Your task to perform on an android device: star an email in the gmail app Image 0: 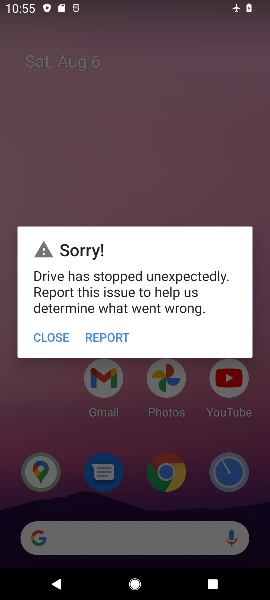
Step 0: click (36, 334)
Your task to perform on an android device: star an email in the gmail app Image 1: 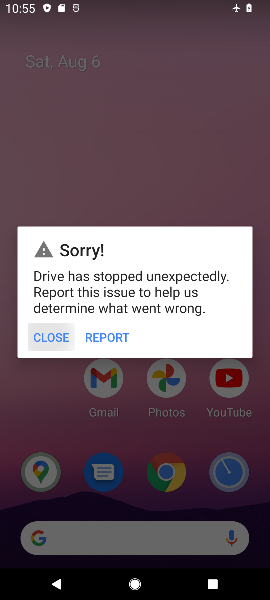
Step 1: press back button
Your task to perform on an android device: star an email in the gmail app Image 2: 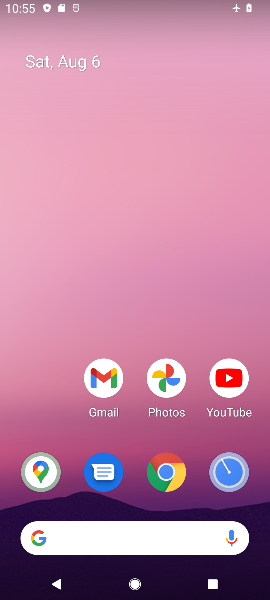
Step 2: drag from (168, 531) to (112, 48)
Your task to perform on an android device: star an email in the gmail app Image 3: 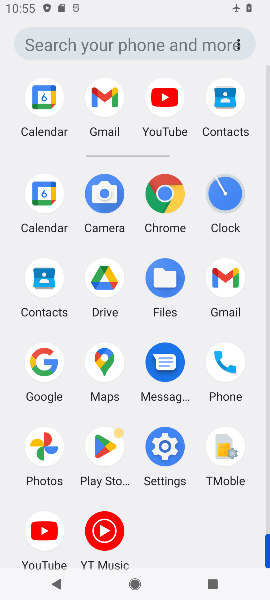
Step 3: drag from (188, 433) to (150, 188)
Your task to perform on an android device: star an email in the gmail app Image 4: 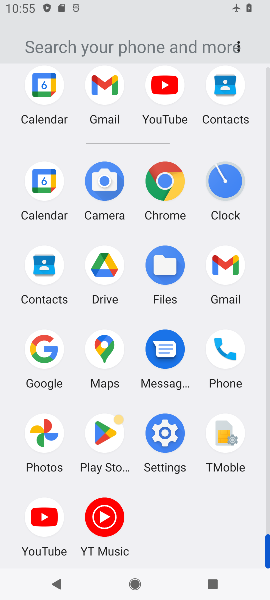
Step 4: click (222, 257)
Your task to perform on an android device: star an email in the gmail app Image 5: 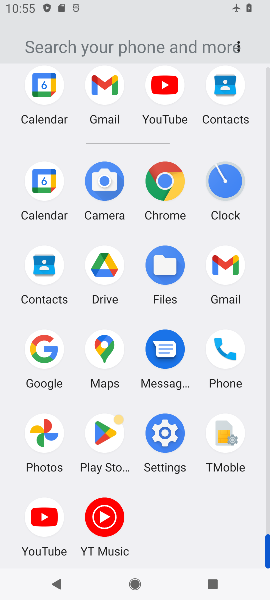
Step 5: click (222, 257)
Your task to perform on an android device: star an email in the gmail app Image 6: 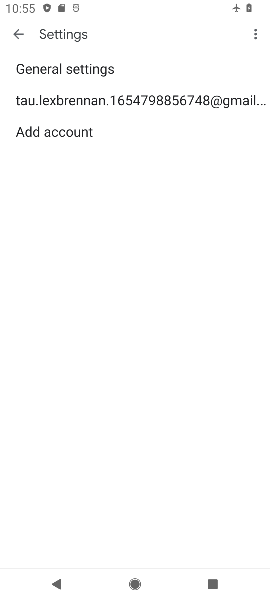
Step 6: click (222, 267)
Your task to perform on an android device: star an email in the gmail app Image 7: 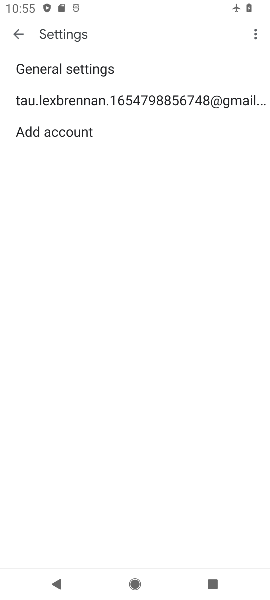
Step 7: click (222, 267)
Your task to perform on an android device: star an email in the gmail app Image 8: 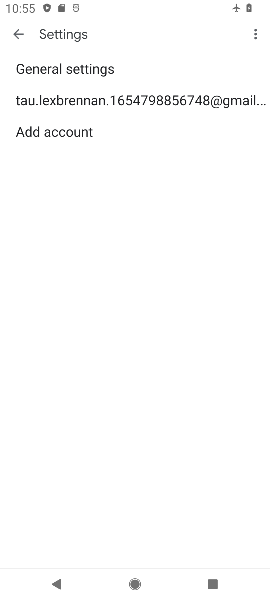
Step 8: click (224, 268)
Your task to perform on an android device: star an email in the gmail app Image 9: 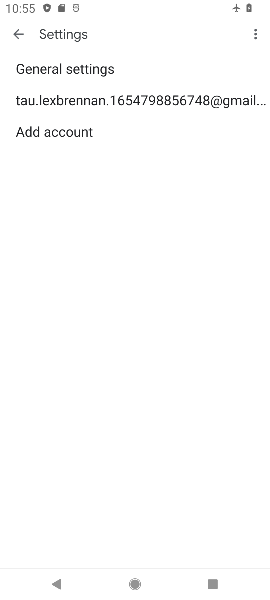
Step 9: click (86, 98)
Your task to perform on an android device: star an email in the gmail app Image 10: 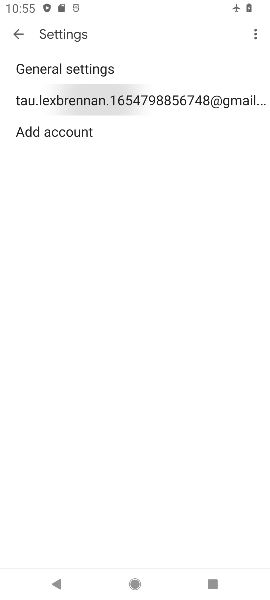
Step 10: click (84, 99)
Your task to perform on an android device: star an email in the gmail app Image 11: 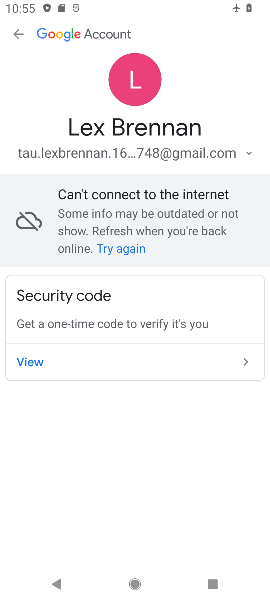
Step 11: click (11, 26)
Your task to perform on an android device: star an email in the gmail app Image 12: 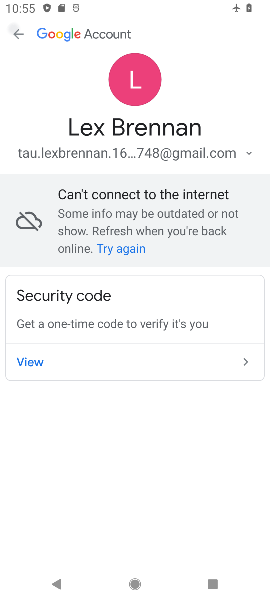
Step 12: click (9, 25)
Your task to perform on an android device: star an email in the gmail app Image 13: 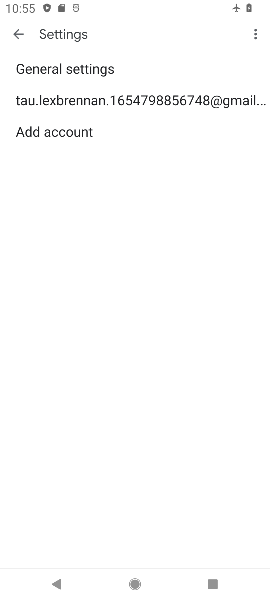
Step 13: click (51, 98)
Your task to perform on an android device: star an email in the gmail app Image 14: 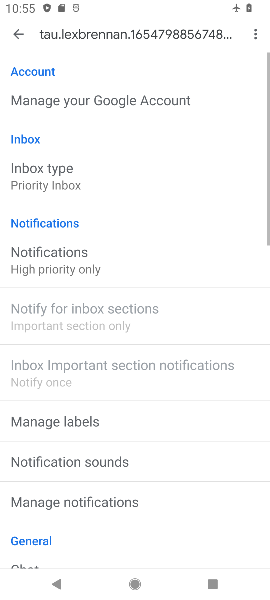
Step 14: click (19, 31)
Your task to perform on an android device: star an email in the gmail app Image 15: 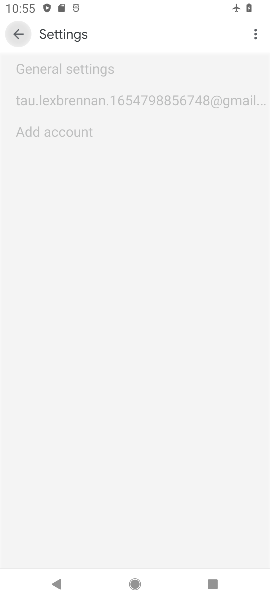
Step 15: click (19, 31)
Your task to perform on an android device: star an email in the gmail app Image 16: 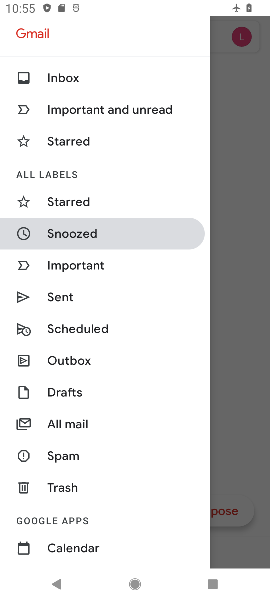
Step 16: click (19, 31)
Your task to perform on an android device: star an email in the gmail app Image 17: 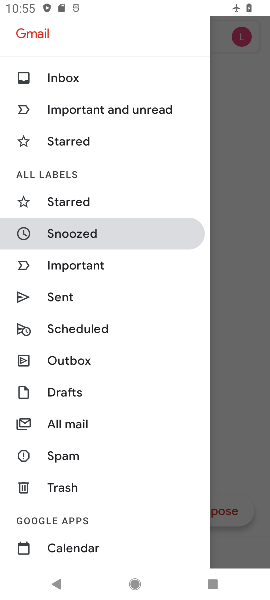
Step 17: click (235, 224)
Your task to perform on an android device: star an email in the gmail app Image 18: 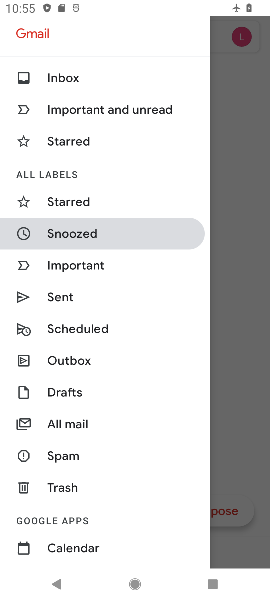
Step 18: click (235, 224)
Your task to perform on an android device: star an email in the gmail app Image 19: 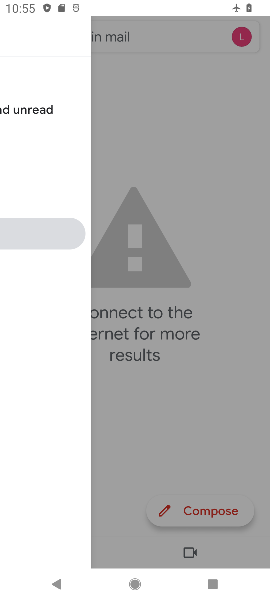
Step 19: click (235, 224)
Your task to perform on an android device: star an email in the gmail app Image 20: 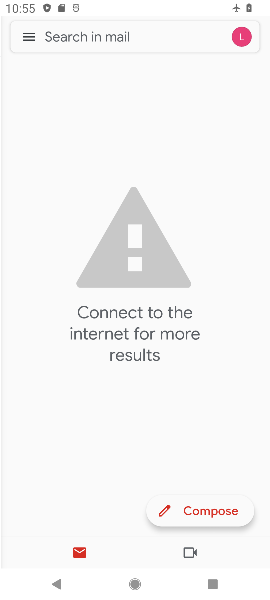
Step 20: click (235, 224)
Your task to perform on an android device: star an email in the gmail app Image 21: 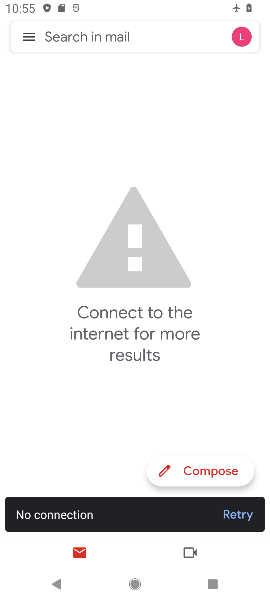
Step 21: click (35, 34)
Your task to perform on an android device: star an email in the gmail app Image 22: 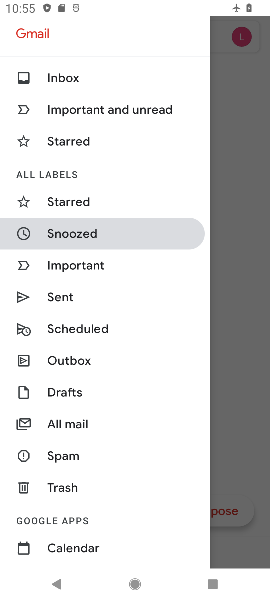
Step 22: click (78, 424)
Your task to perform on an android device: star an email in the gmail app Image 23: 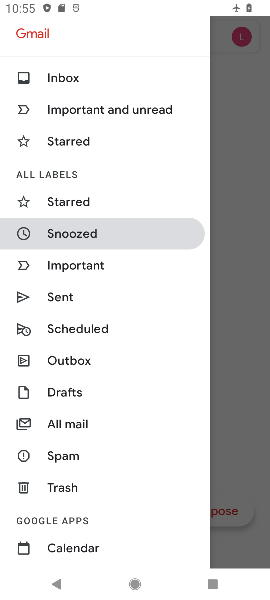
Step 23: click (78, 423)
Your task to perform on an android device: star an email in the gmail app Image 24: 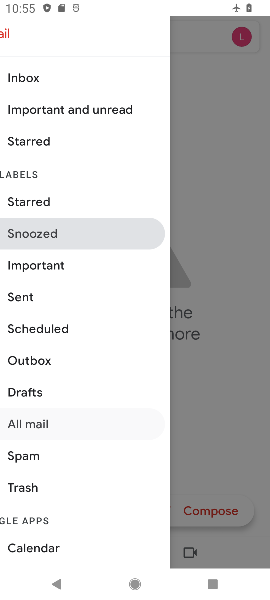
Step 24: click (78, 423)
Your task to perform on an android device: star an email in the gmail app Image 25: 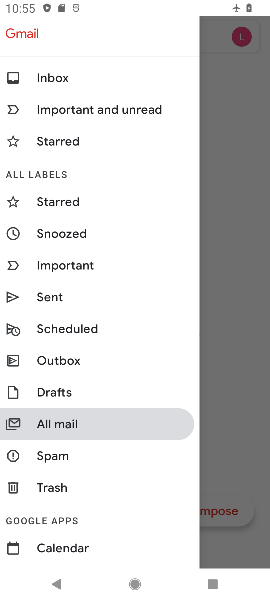
Step 25: click (78, 423)
Your task to perform on an android device: star an email in the gmail app Image 26: 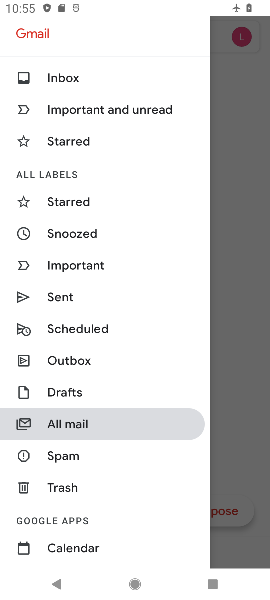
Step 26: click (78, 423)
Your task to perform on an android device: star an email in the gmail app Image 27: 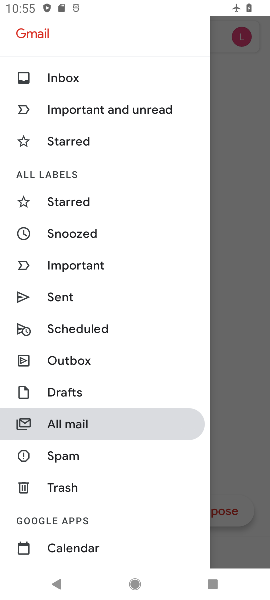
Step 27: click (78, 423)
Your task to perform on an android device: star an email in the gmail app Image 28: 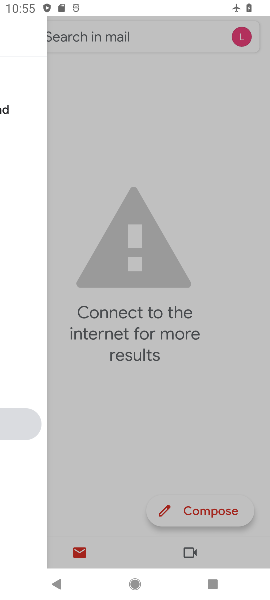
Step 28: click (77, 424)
Your task to perform on an android device: star an email in the gmail app Image 29: 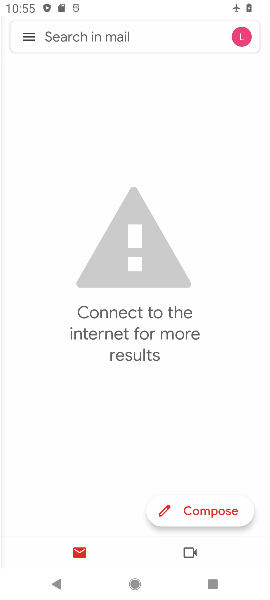
Step 29: click (124, 407)
Your task to perform on an android device: star an email in the gmail app Image 30: 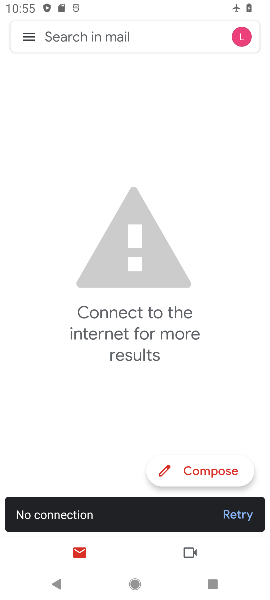
Step 30: task complete